Your task to perform on an android device: Open Wikipedia Image 0: 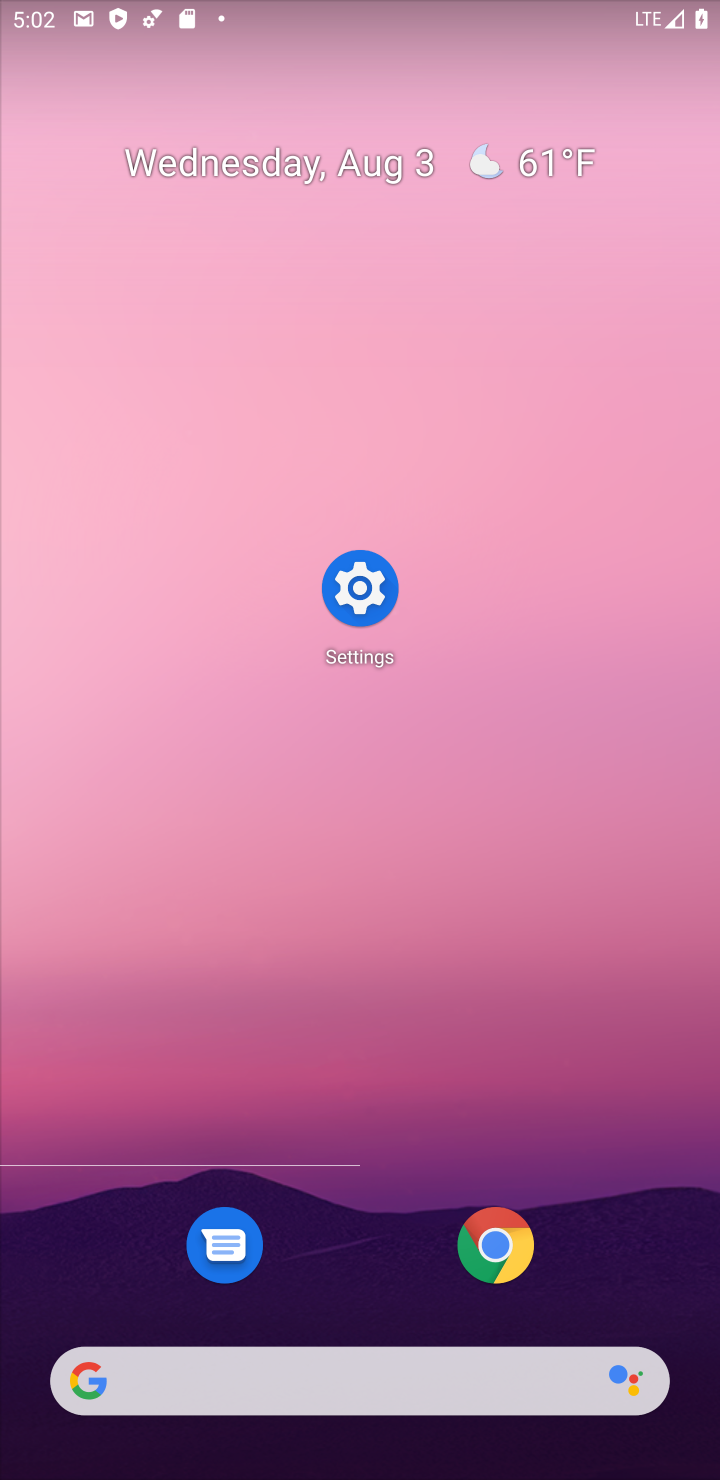
Step 0: click (470, 1278)
Your task to perform on an android device: Open Wikipedia Image 1: 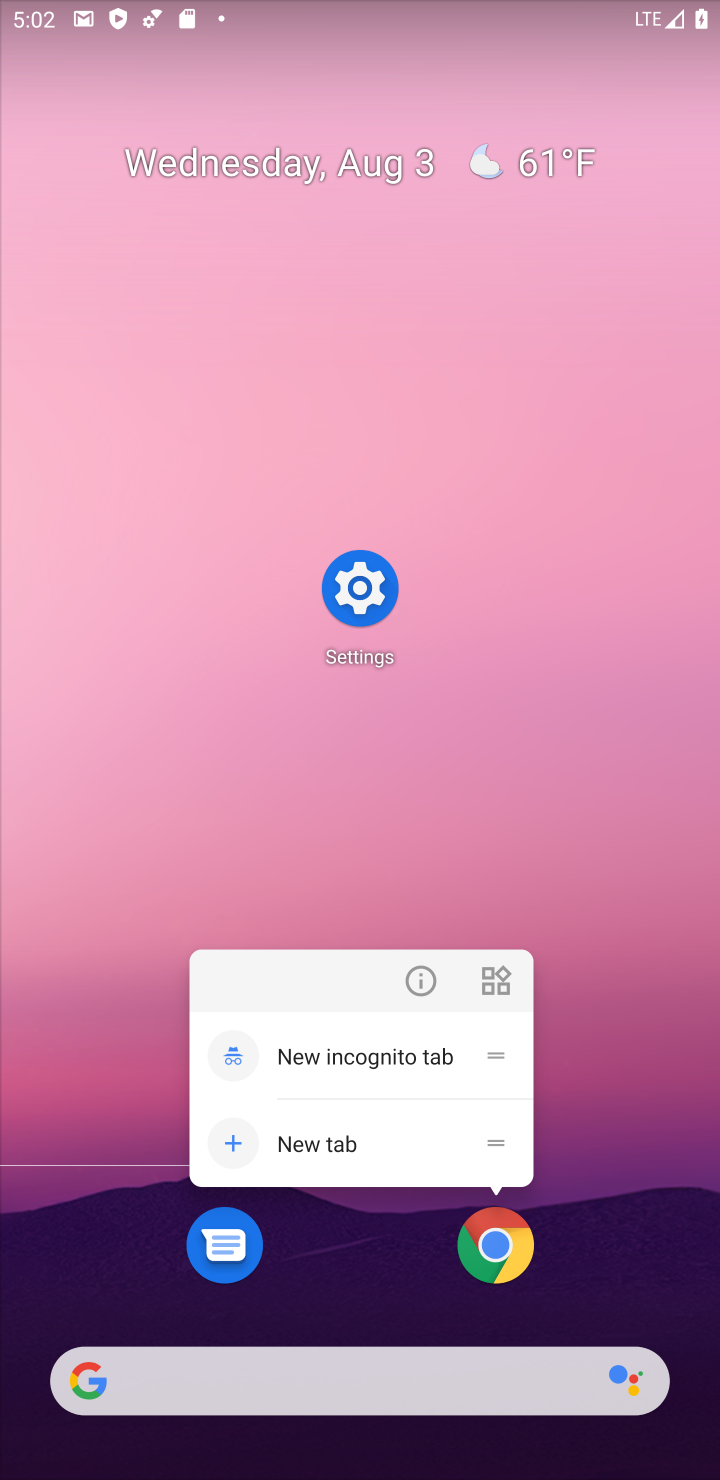
Step 1: click (470, 1278)
Your task to perform on an android device: Open Wikipedia Image 2: 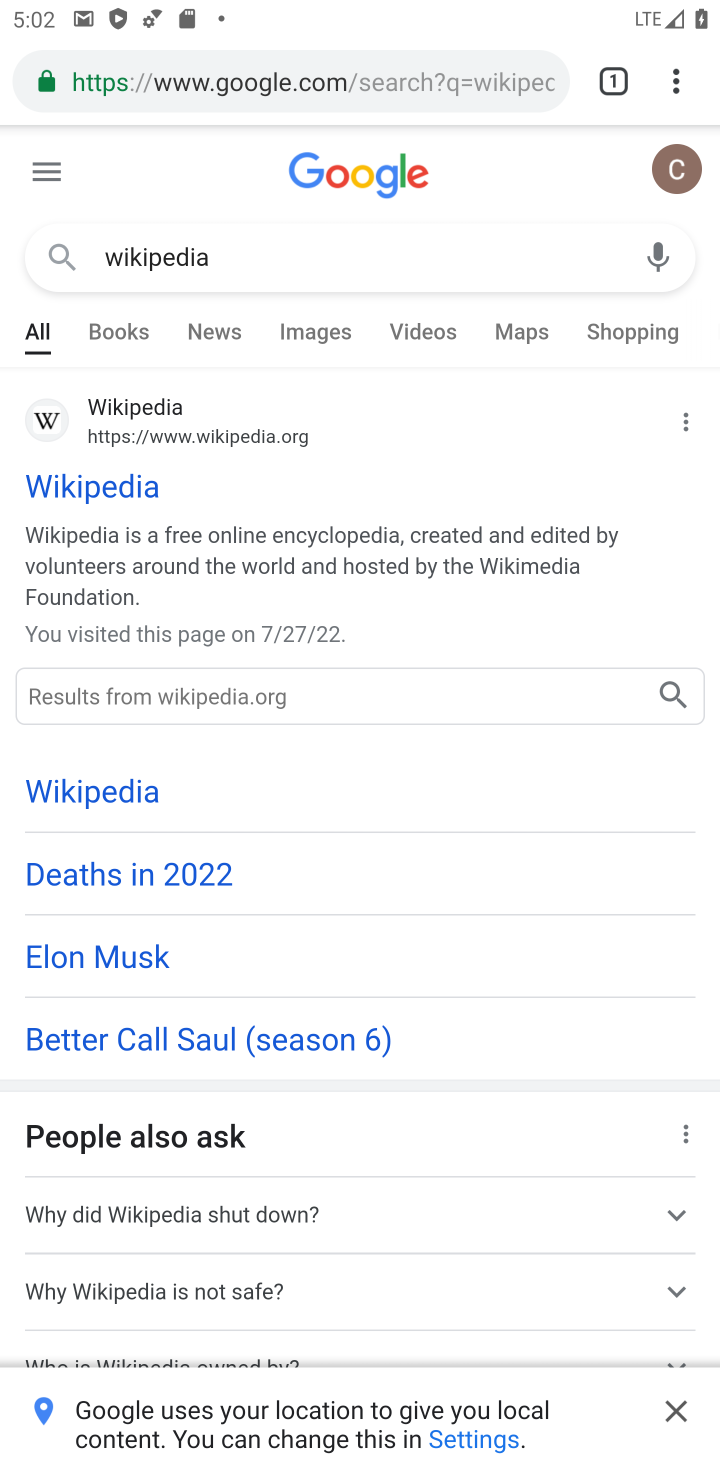
Step 2: click (286, 96)
Your task to perform on an android device: Open Wikipedia Image 3: 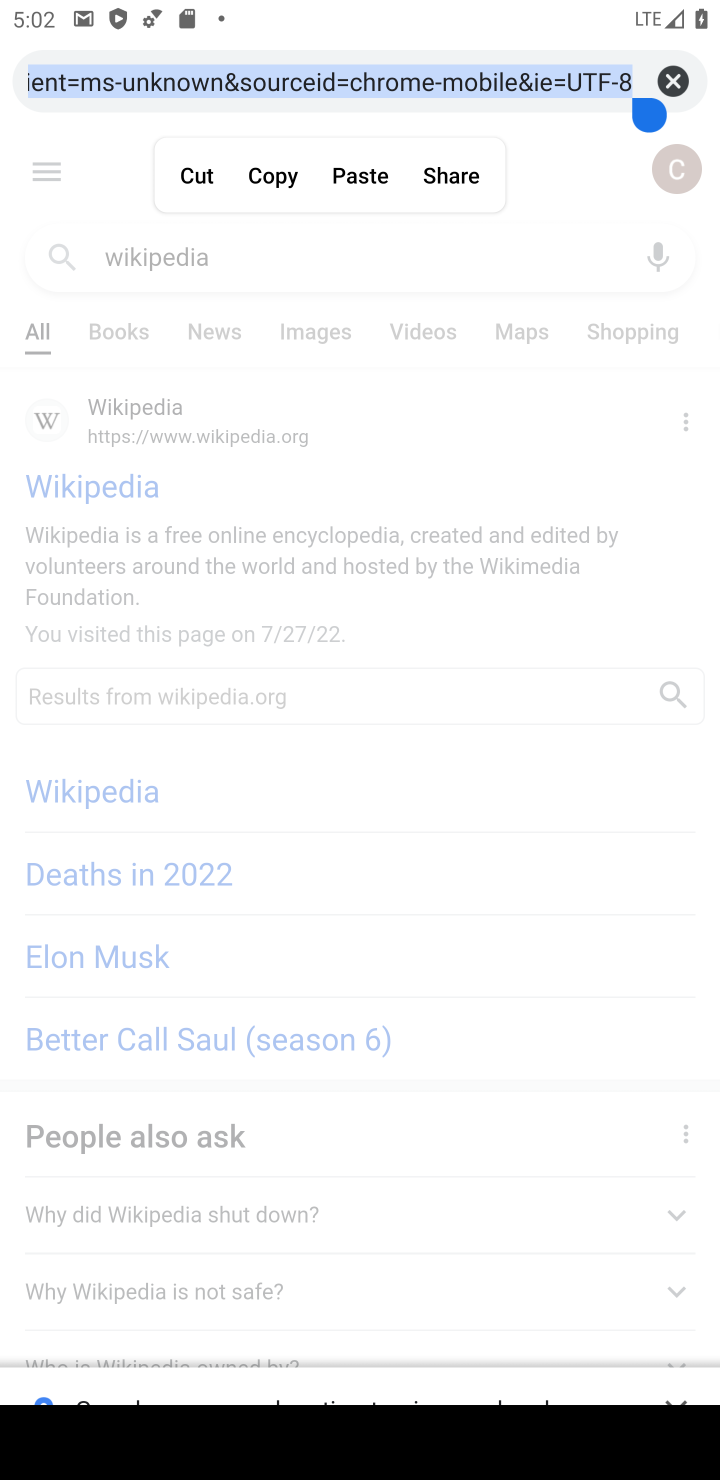
Step 3: type "wikipedia"
Your task to perform on an android device: Open Wikipedia Image 4: 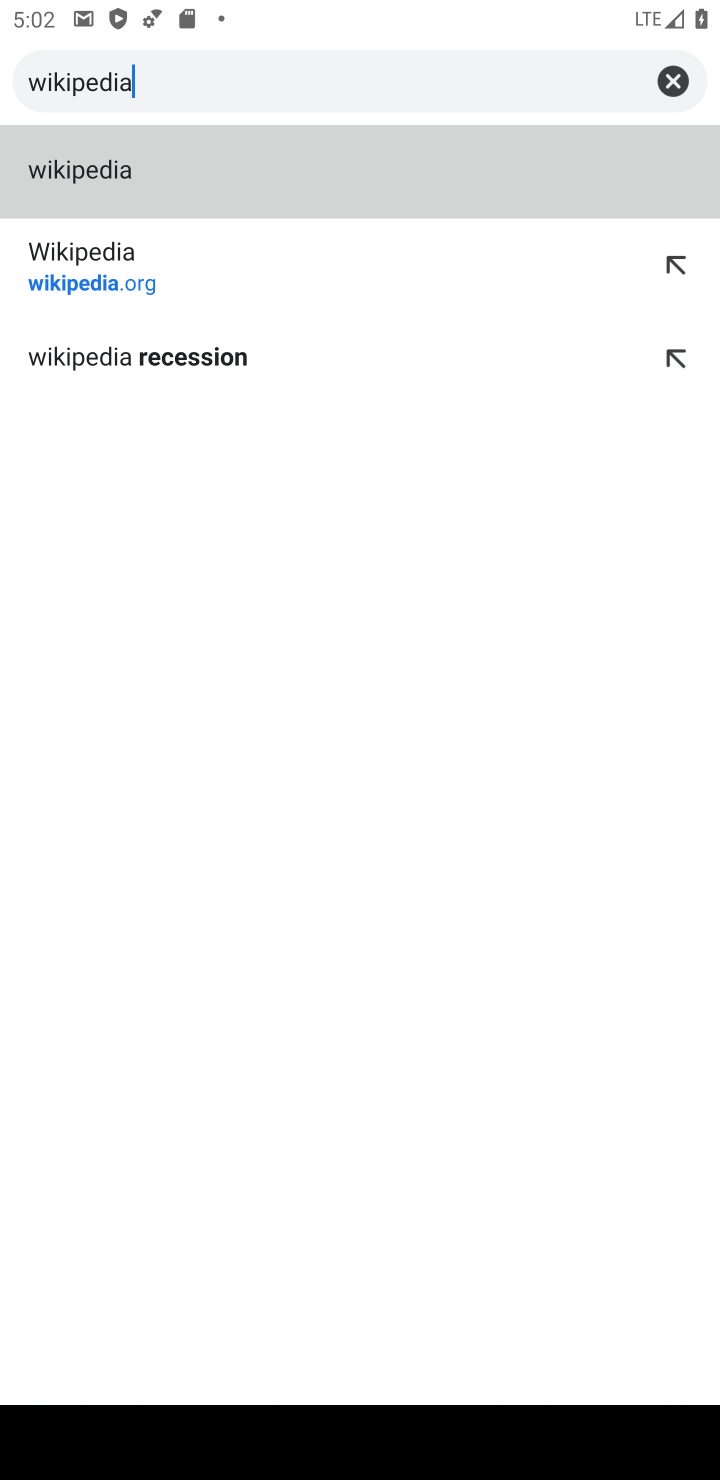
Step 4: click (91, 148)
Your task to perform on an android device: Open Wikipedia Image 5: 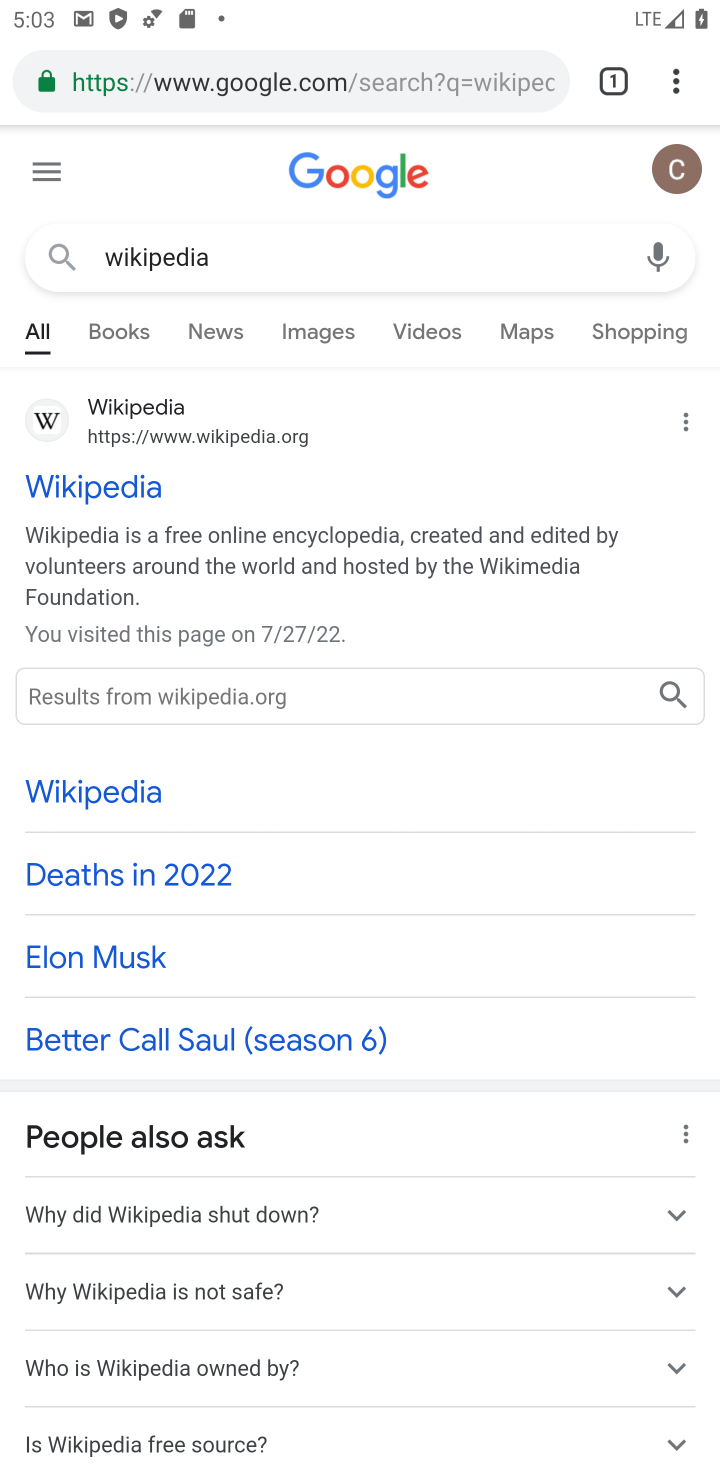
Step 5: click (114, 487)
Your task to perform on an android device: Open Wikipedia Image 6: 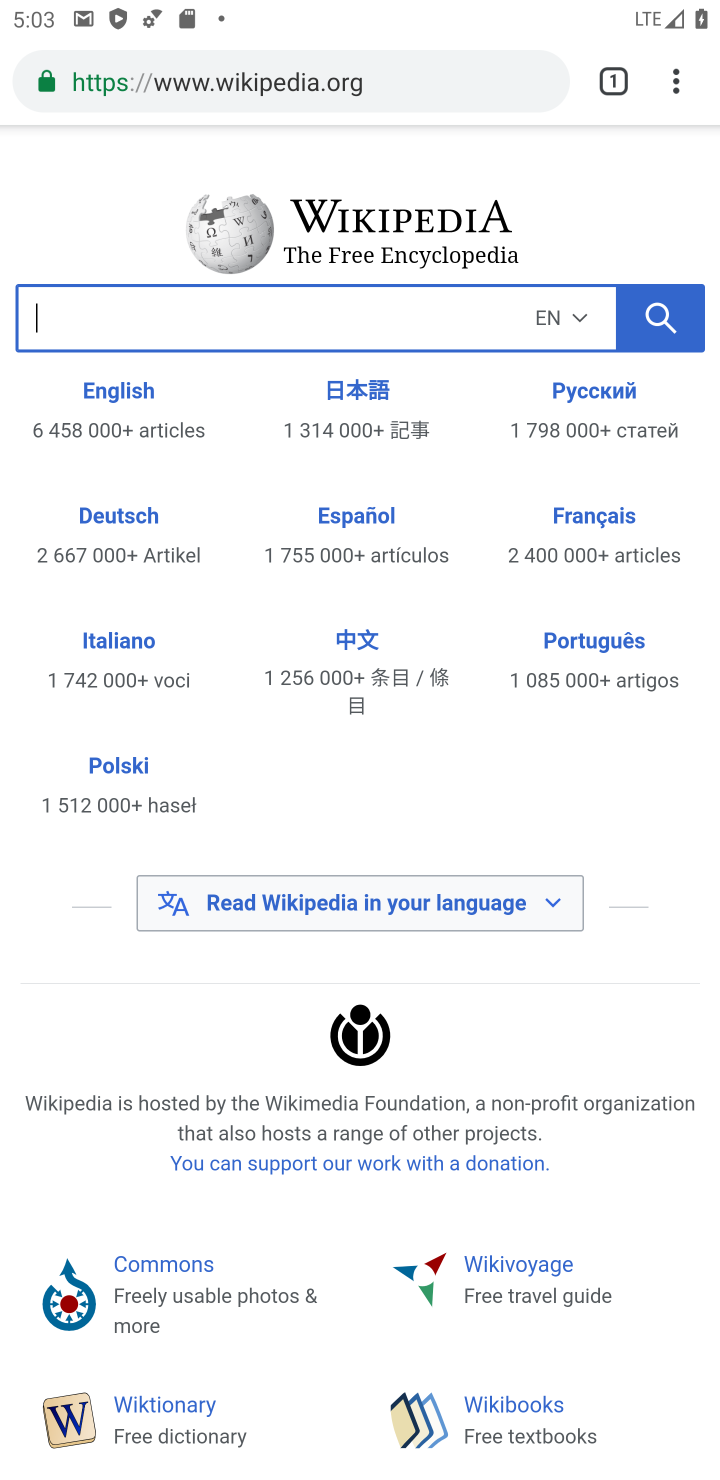
Step 6: task complete